Your task to perform on an android device: Open location settings Image 0: 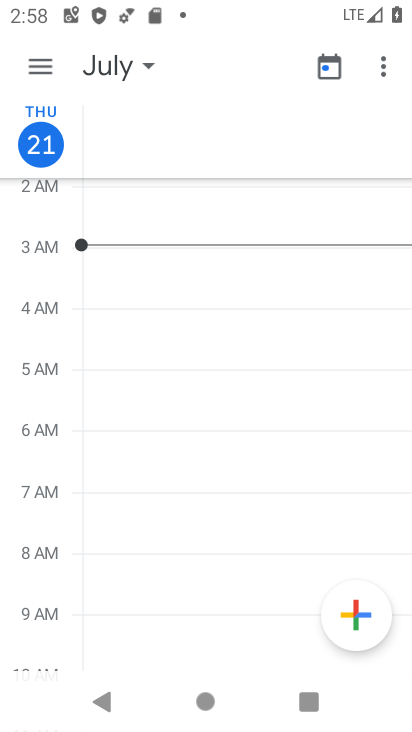
Step 0: press home button
Your task to perform on an android device: Open location settings Image 1: 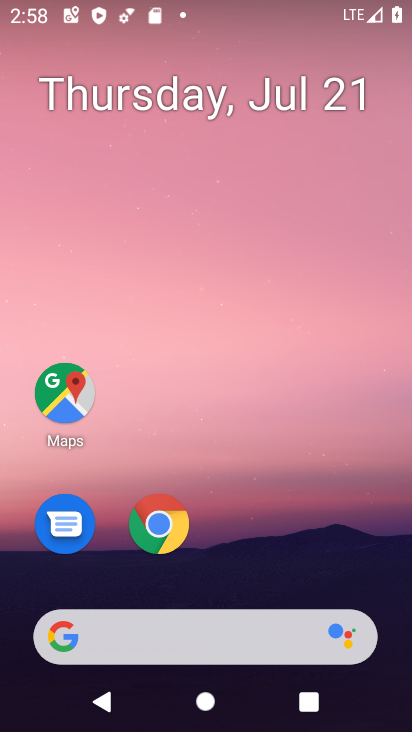
Step 1: drag from (276, 342) to (278, 17)
Your task to perform on an android device: Open location settings Image 2: 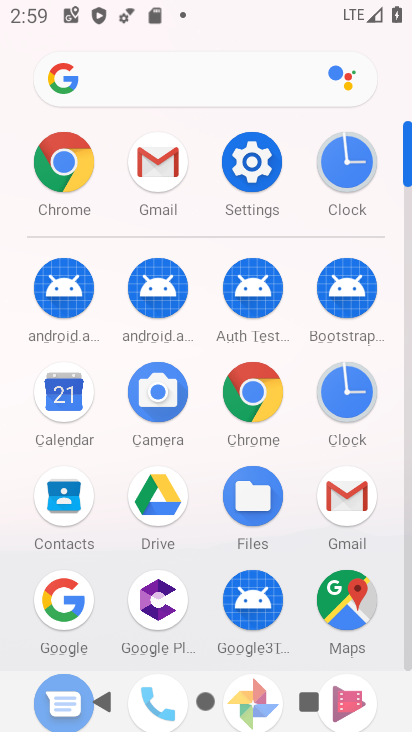
Step 2: click (244, 170)
Your task to perform on an android device: Open location settings Image 3: 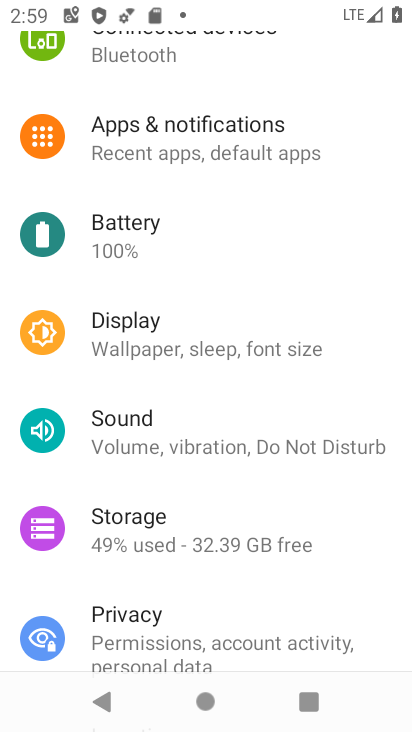
Step 3: drag from (245, 500) to (235, 53)
Your task to perform on an android device: Open location settings Image 4: 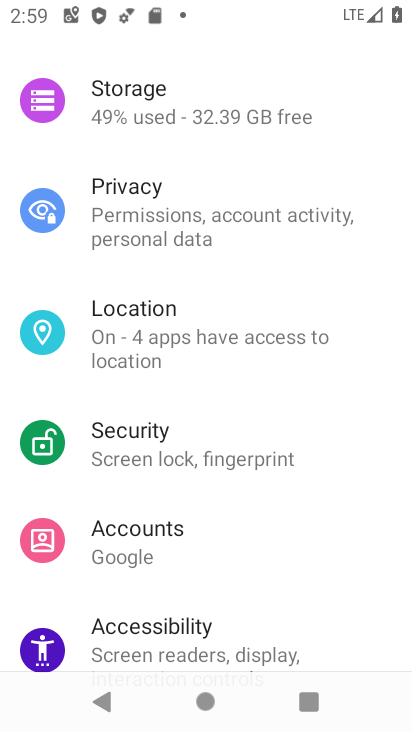
Step 4: click (203, 326)
Your task to perform on an android device: Open location settings Image 5: 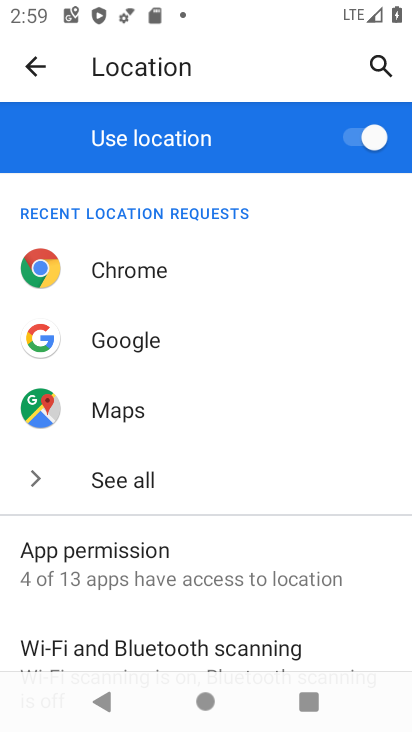
Step 5: task complete